Your task to perform on an android device: change alarm snooze length Image 0: 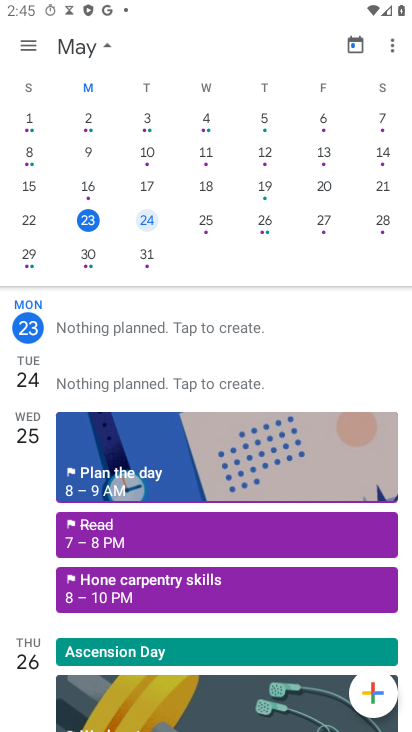
Step 0: press home button
Your task to perform on an android device: change alarm snooze length Image 1: 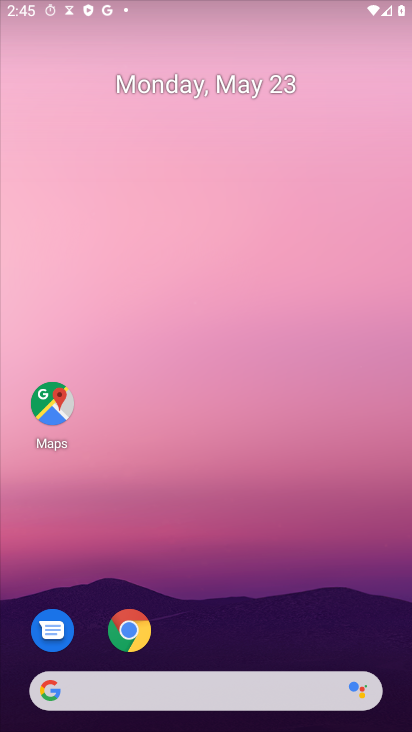
Step 1: drag from (357, 557) to (412, 111)
Your task to perform on an android device: change alarm snooze length Image 2: 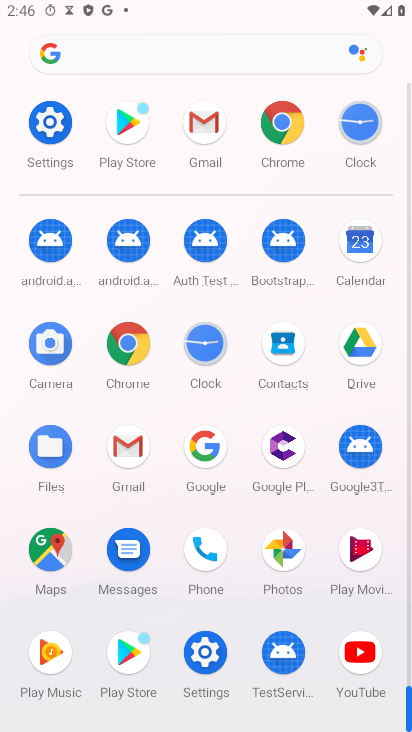
Step 2: click (359, 120)
Your task to perform on an android device: change alarm snooze length Image 3: 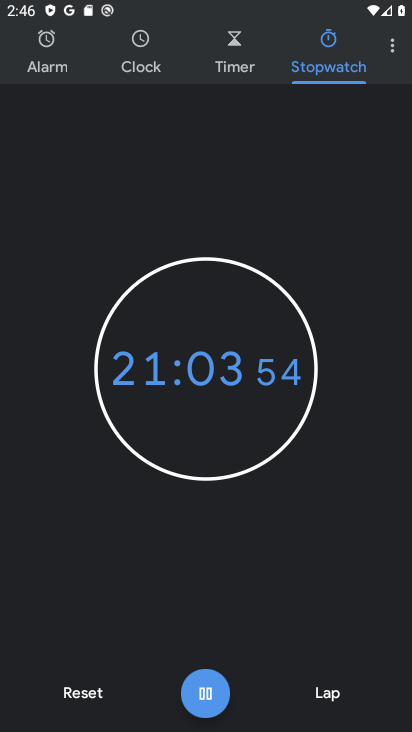
Step 3: drag from (385, 49) to (273, 134)
Your task to perform on an android device: change alarm snooze length Image 4: 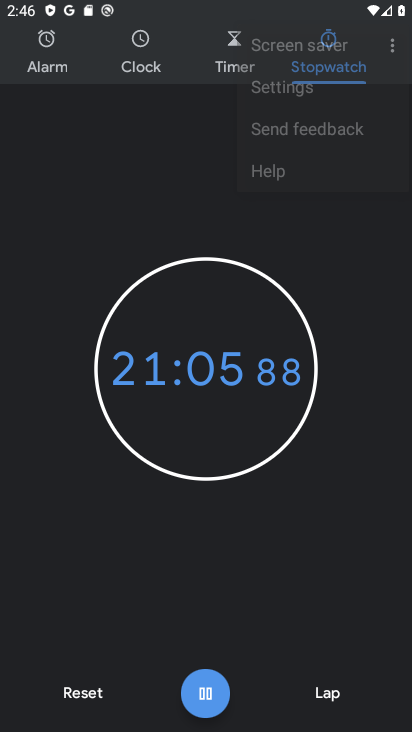
Step 4: click (388, 44)
Your task to perform on an android device: change alarm snooze length Image 5: 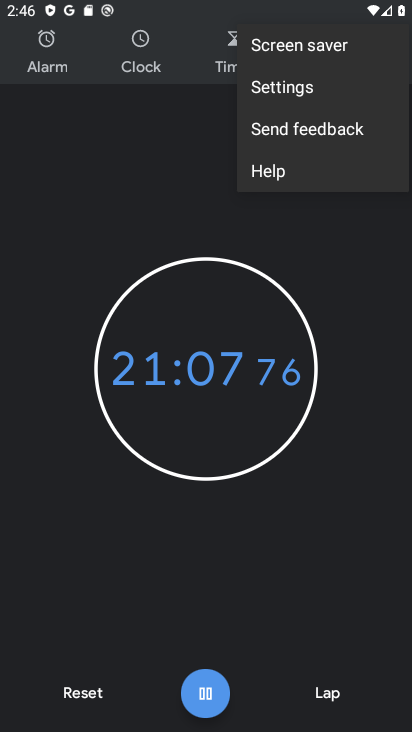
Step 5: click (296, 88)
Your task to perform on an android device: change alarm snooze length Image 6: 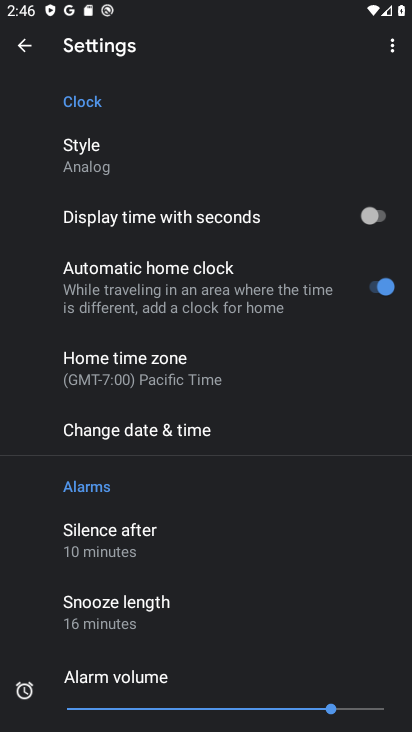
Step 6: click (138, 612)
Your task to perform on an android device: change alarm snooze length Image 7: 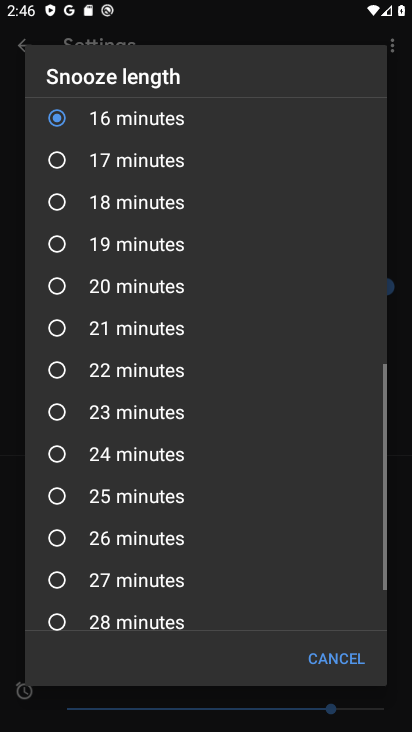
Step 7: click (104, 367)
Your task to perform on an android device: change alarm snooze length Image 8: 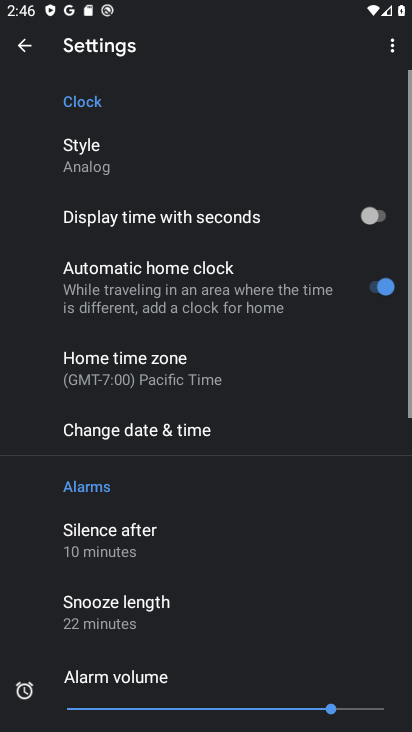
Step 8: task complete